Your task to perform on an android device: Open the map Image 0: 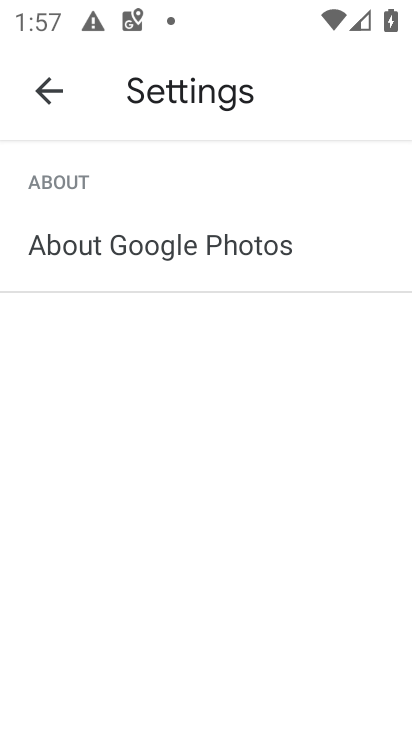
Step 0: press home button
Your task to perform on an android device: Open the map Image 1: 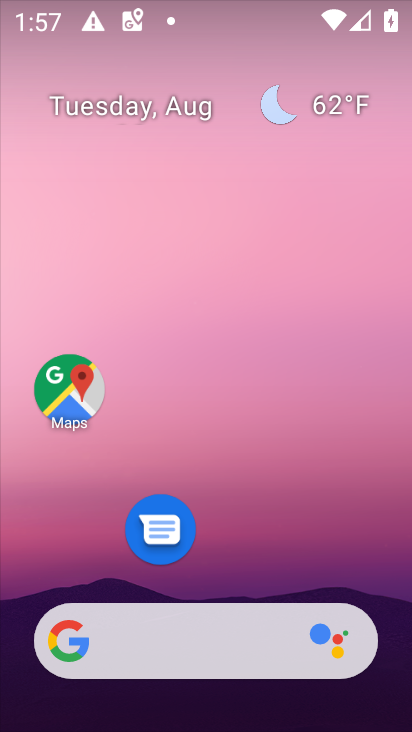
Step 1: click (75, 412)
Your task to perform on an android device: Open the map Image 2: 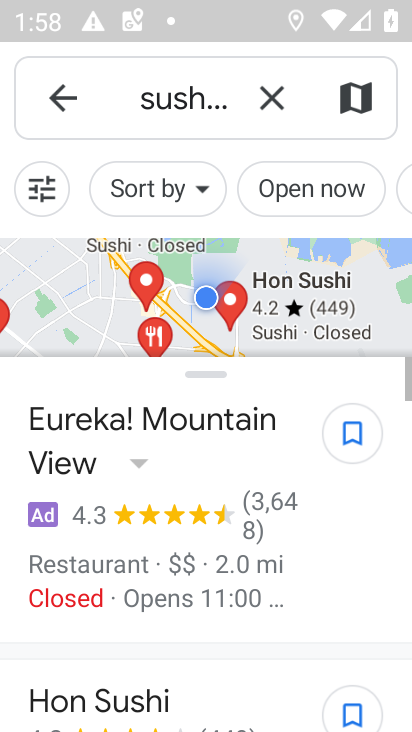
Step 2: task complete